Your task to perform on an android device: turn on the 24-hour format for clock Image 0: 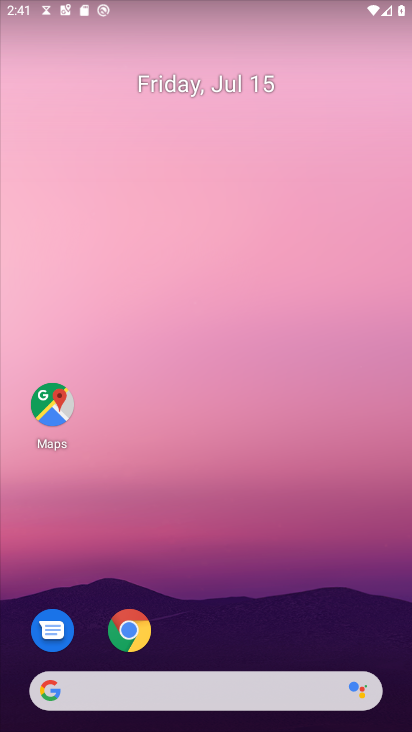
Step 0: drag from (283, 556) to (323, 42)
Your task to perform on an android device: turn on the 24-hour format for clock Image 1: 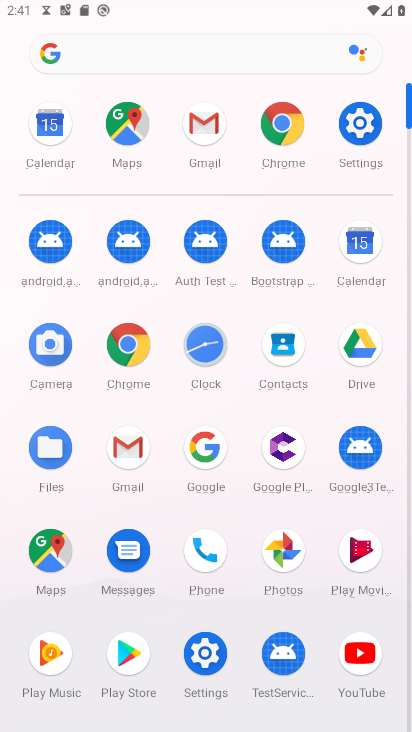
Step 1: click (205, 355)
Your task to perform on an android device: turn on the 24-hour format for clock Image 2: 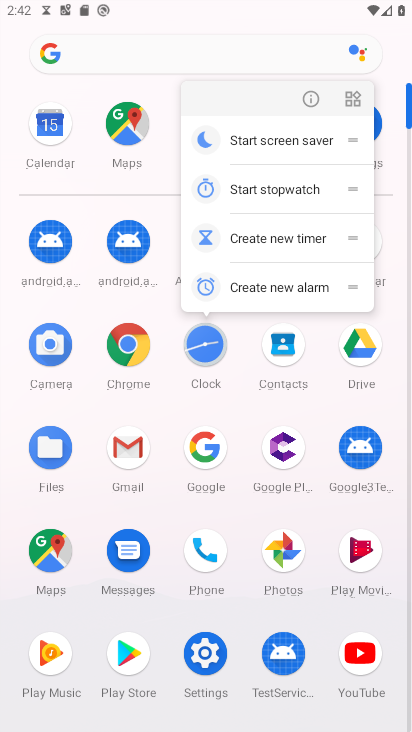
Step 2: click (205, 354)
Your task to perform on an android device: turn on the 24-hour format for clock Image 3: 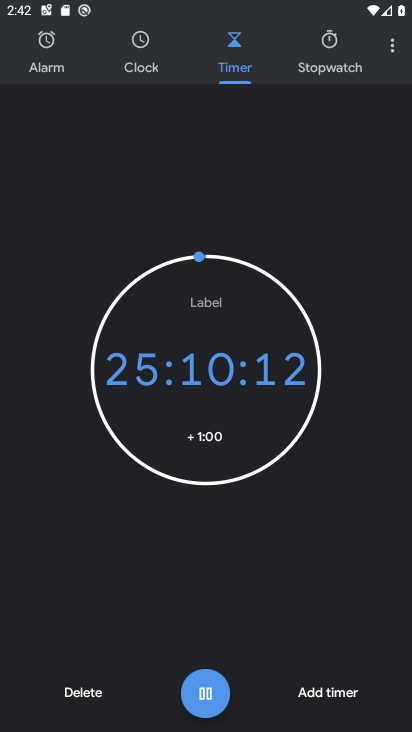
Step 3: click (392, 49)
Your task to perform on an android device: turn on the 24-hour format for clock Image 4: 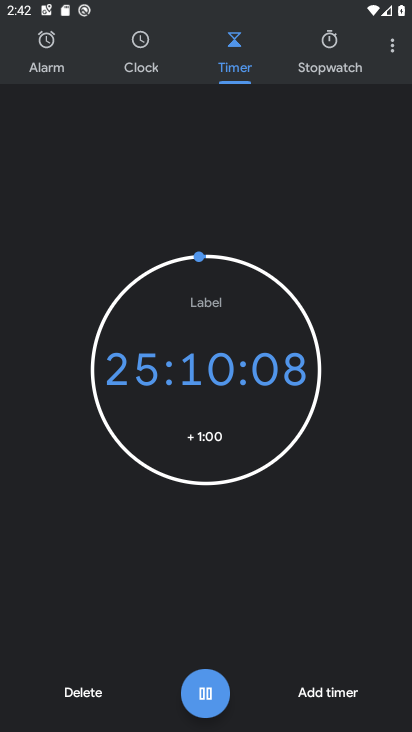
Step 4: click (386, 43)
Your task to perform on an android device: turn on the 24-hour format for clock Image 5: 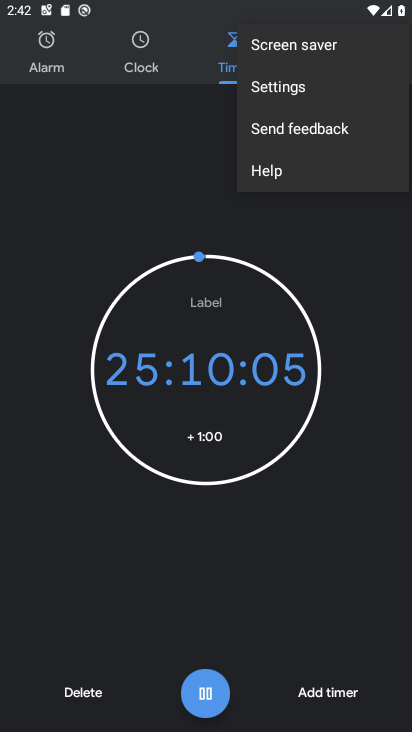
Step 5: click (296, 83)
Your task to perform on an android device: turn on the 24-hour format for clock Image 6: 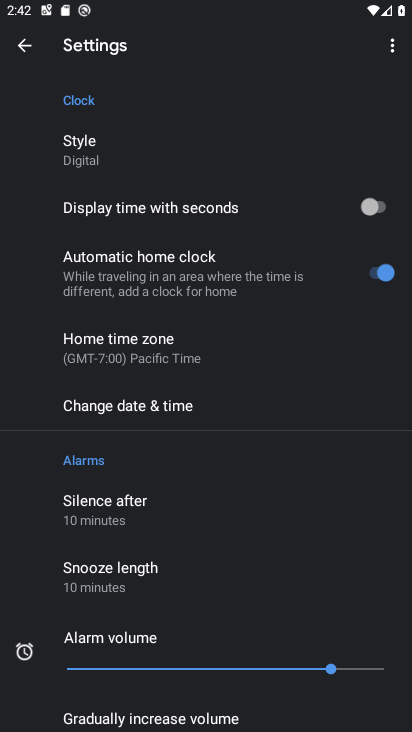
Step 6: click (143, 406)
Your task to perform on an android device: turn on the 24-hour format for clock Image 7: 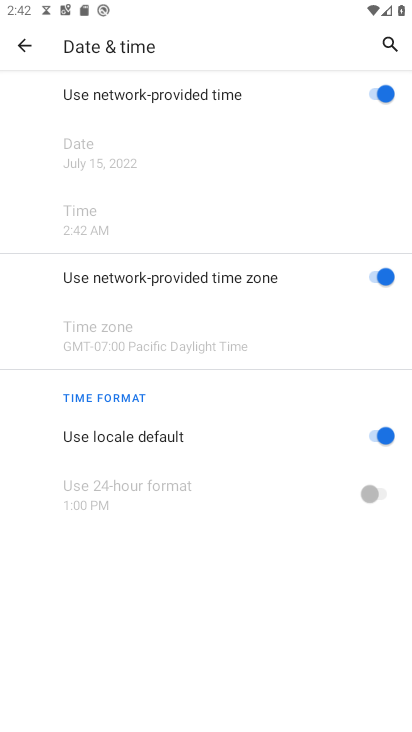
Step 7: click (378, 435)
Your task to perform on an android device: turn on the 24-hour format for clock Image 8: 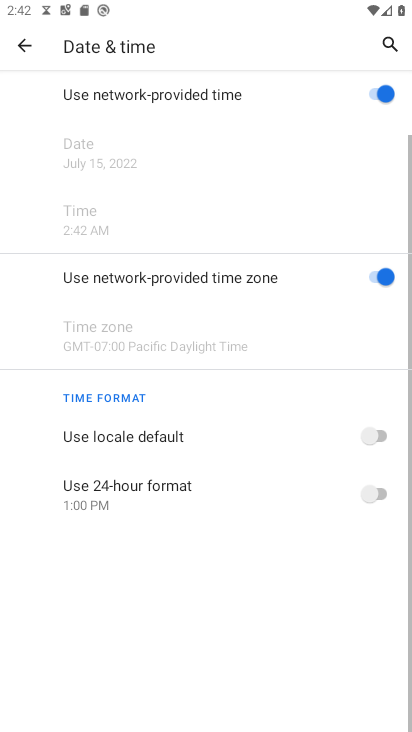
Step 8: click (375, 495)
Your task to perform on an android device: turn on the 24-hour format for clock Image 9: 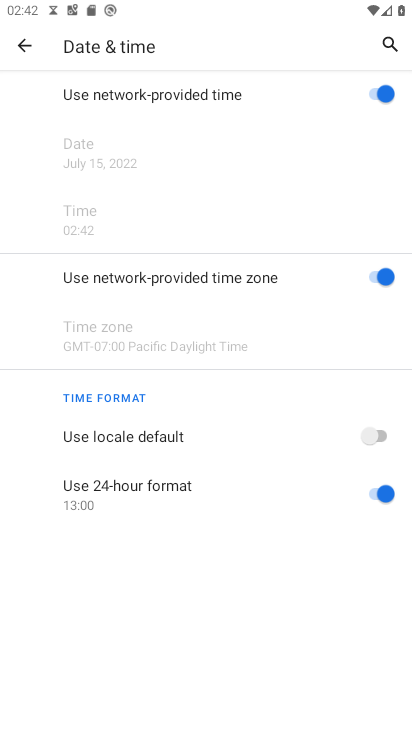
Step 9: task complete